Your task to perform on an android device: toggle priority inbox in the gmail app Image 0: 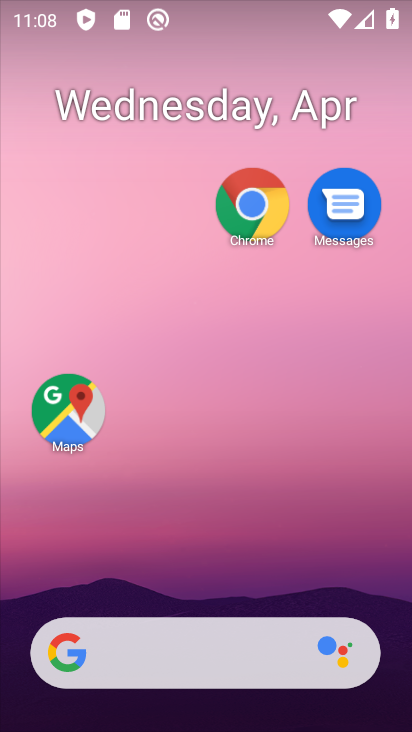
Step 0: drag from (201, 539) to (241, 61)
Your task to perform on an android device: toggle priority inbox in the gmail app Image 1: 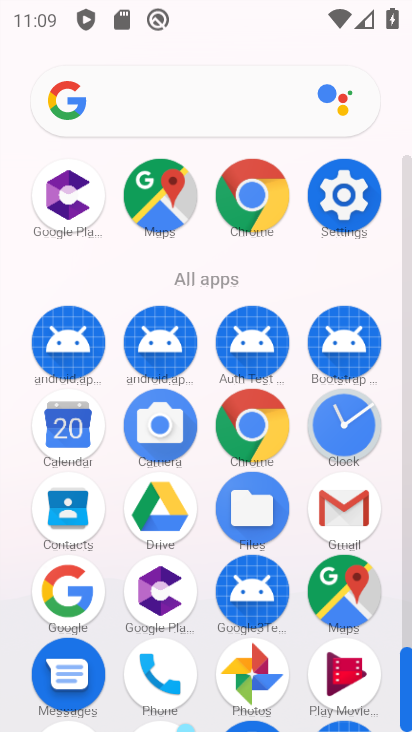
Step 1: click (353, 517)
Your task to perform on an android device: toggle priority inbox in the gmail app Image 2: 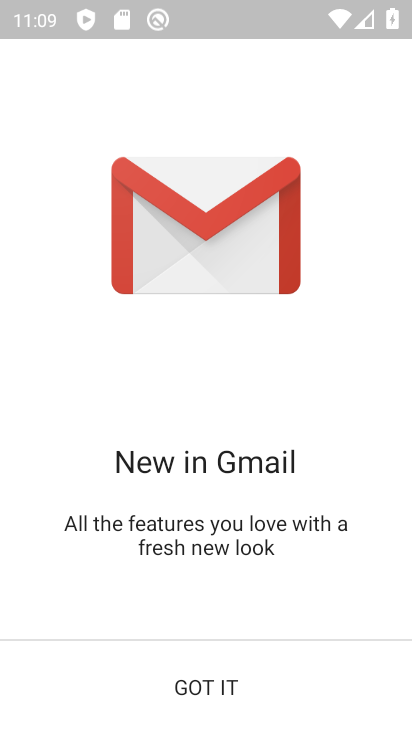
Step 2: click (190, 680)
Your task to perform on an android device: toggle priority inbox in the gmail app Image 3: 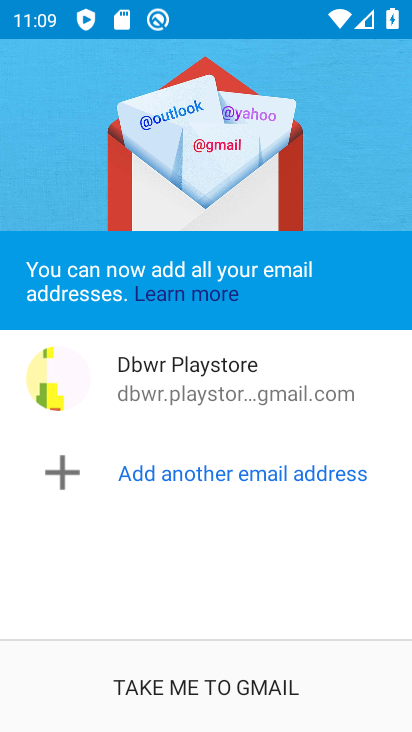
Step 3: click (196, 667)
Your task to perform on an android device: toggle priority inbox in the gmail app Image 4: 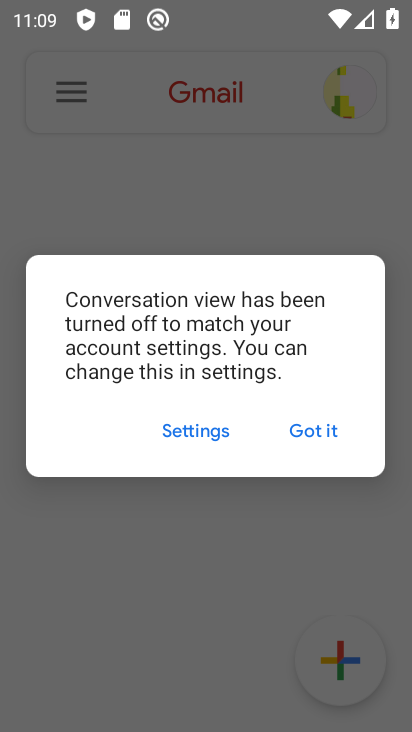
Step 4: click (303, 423)
Your task to perform on an android device: toggle priority inbox in the gmail app Image 5: 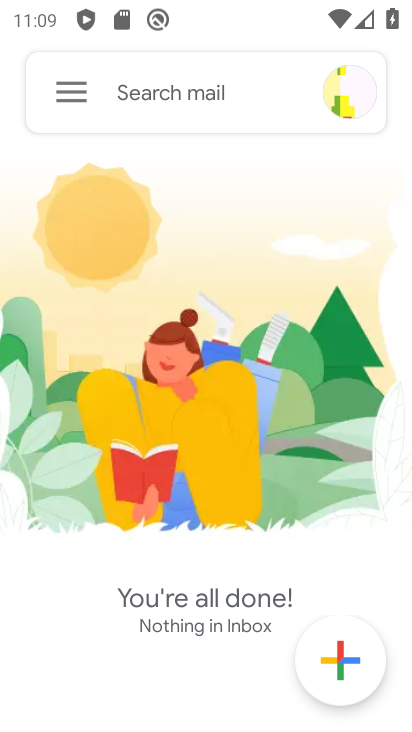
Step 5: click (80, 89)
Your task to perform on an android device: toggle priority inbox in the gmail app Image 6: 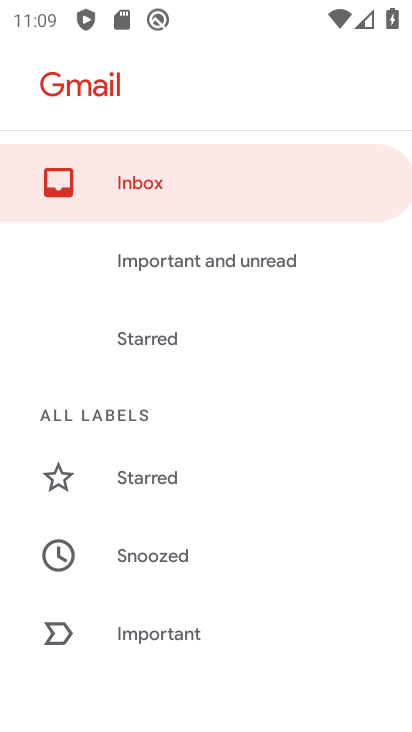
Step 6: drag from (176, 668) to (188, 190)
Your task to perform on an android device: toggle priority inbox in the gmail app Image 7: 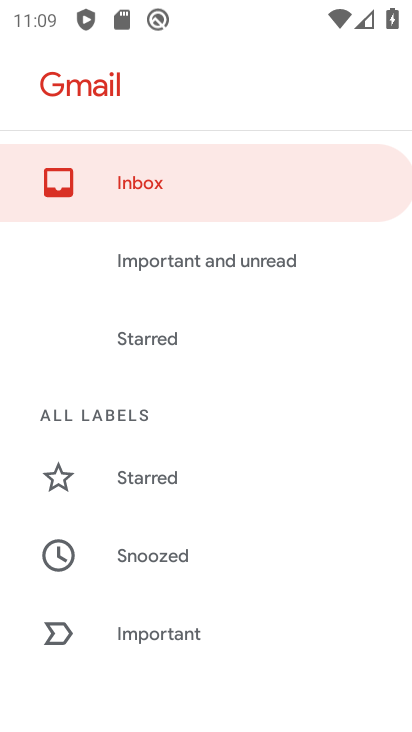
Step 7: drag from (222, 595) to (223, 71)
Your task to perform on an android device: toggle priority inbox in the gmail app Image 8: 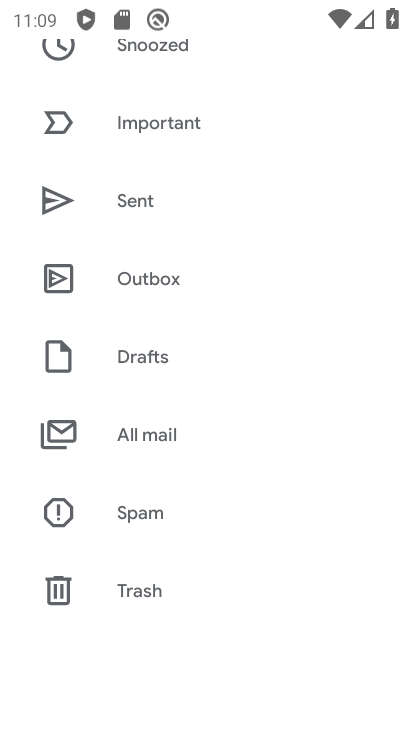
Step 8: drag from (253, 485) to (237, 2)
Your task to perform on an android device: toggle priority inbox in the gmail app Image 9: 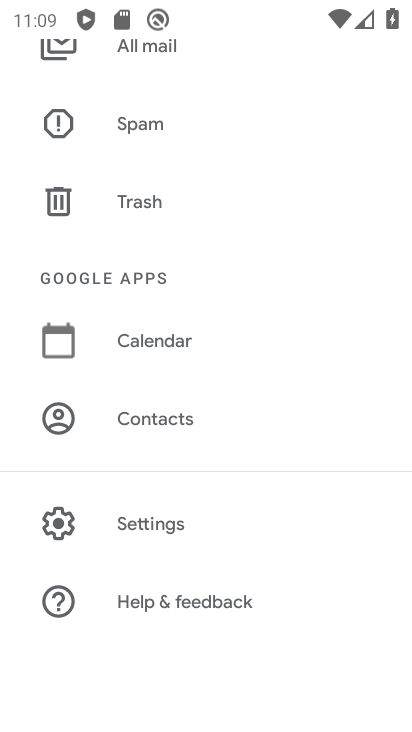
Step 9: click (169, 526)
Your task to perform on an android device: toggle priority inbox in the gmail app Image 10: 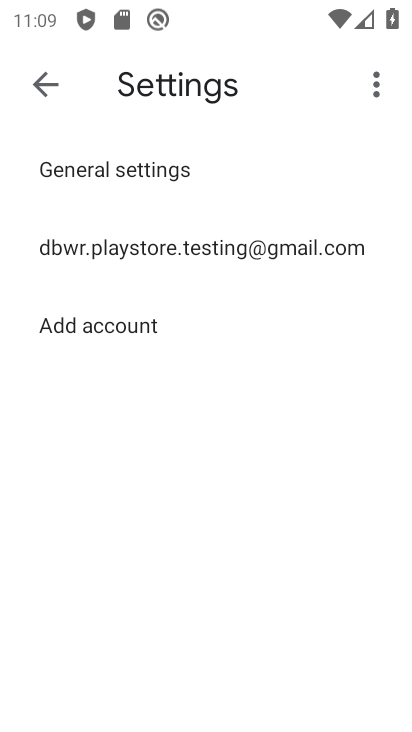
Step 10: click (154, 254)
Your task to perform on an android device: toggle priority inbox in the gmail app Image 11: 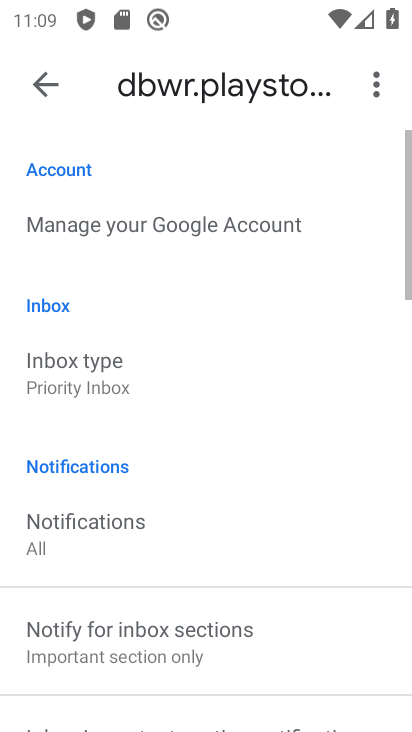
Step 11: click (100, 388)
Your task to perform on an android device: toggle priority inbox in the gmail app Image 12: 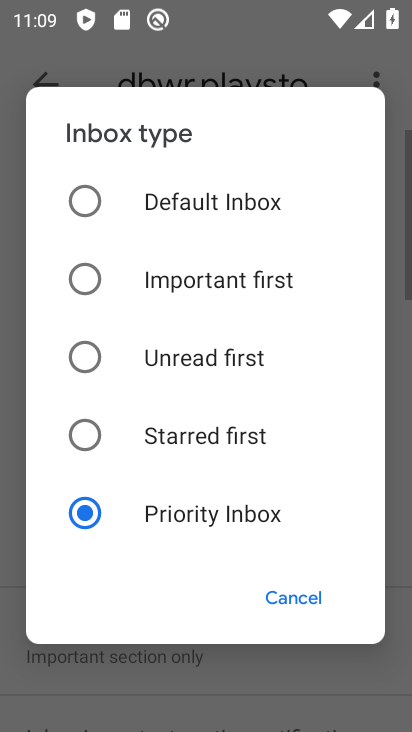
Step 12: click (81, 454)
Your task to perform on an android device: toggle priority inbox in the gmail app Image 13: 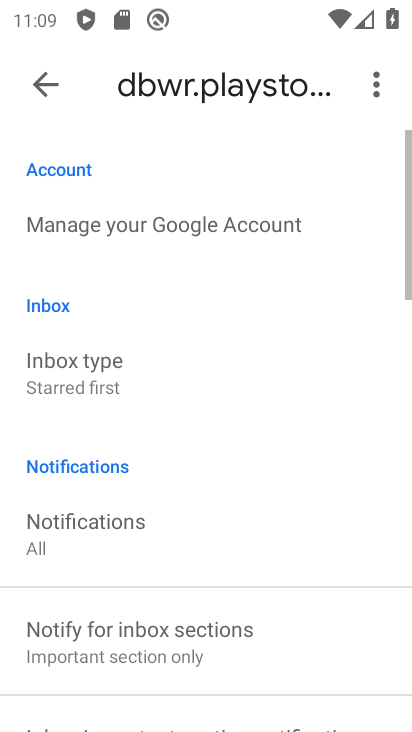
Step 13: task complete